Your task to perform on an android device: open the mobile data screen to see how much data has been used Image 0: 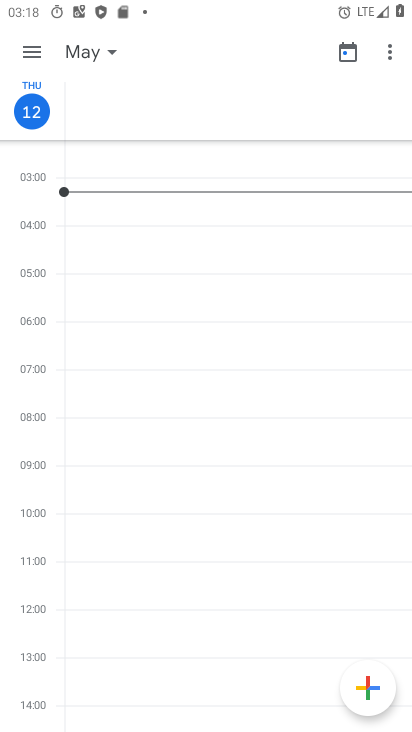
Step 0: press home button
Your task to perform on an android device: open the mobile data screen to see how much data has been used Image 1: 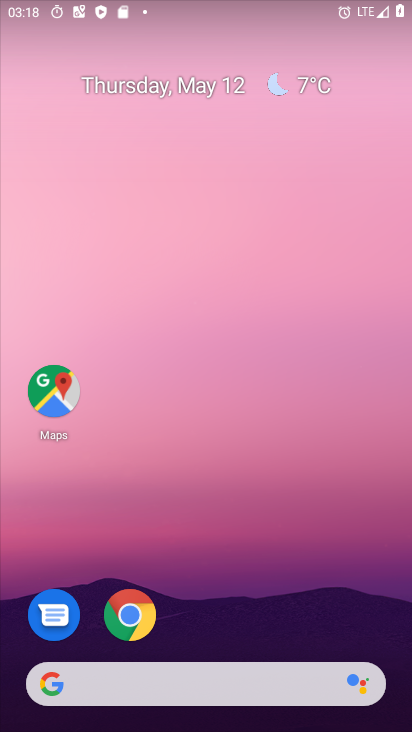
Step 1: drag from (254, 670) to (306, 114)
Your task to perform on an android device: open the mobile data screen to see how much data has been used Image 2: 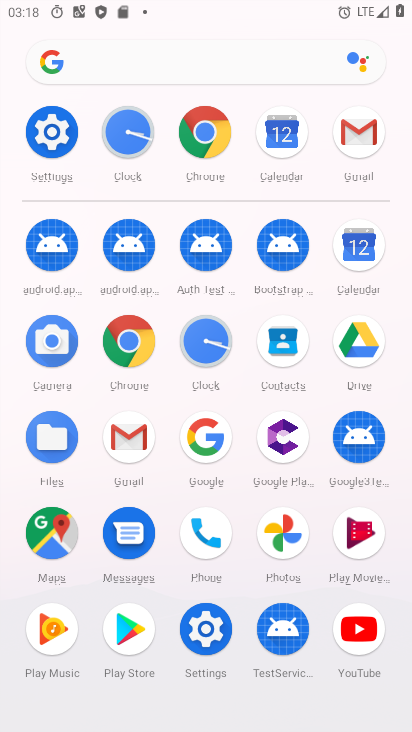
Step 2: click (54, 147)
Your task to perform on an android device: open the mobile data screen to see how much data has been used Image 3: 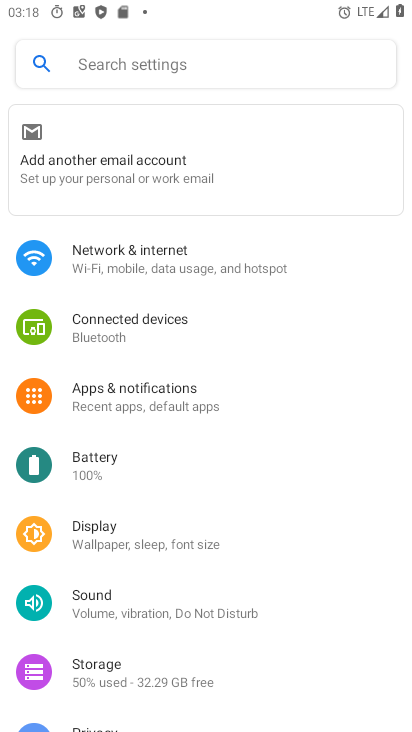
Step 3: click (118, 273)
Your task to perform on an android device: open the mobile data screen to see how much data has been used Image 4: 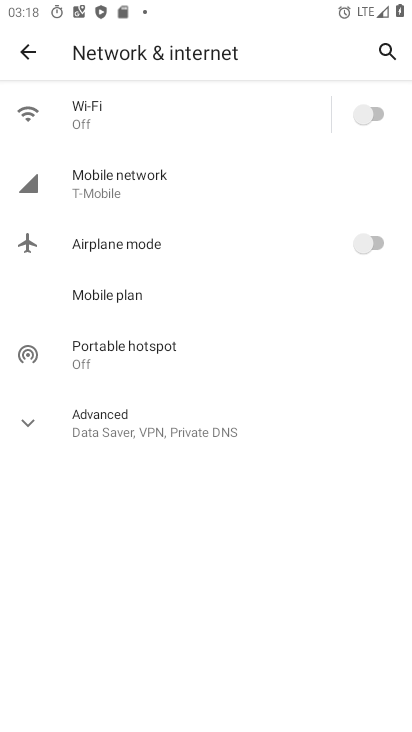
Step 4: click (120, 179)
Your task to perform on an android device: open the mobile data screen to see how much data has been used Image 5: 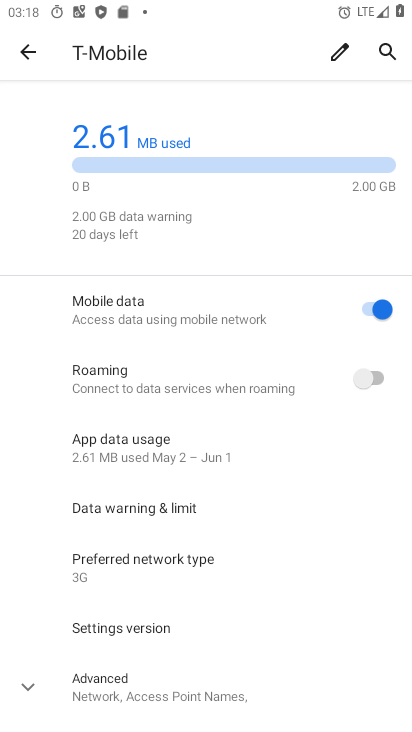
Step 5: task complete